Your task to perform on an android device: Open Youtube and go to "Your channel" Image 0: 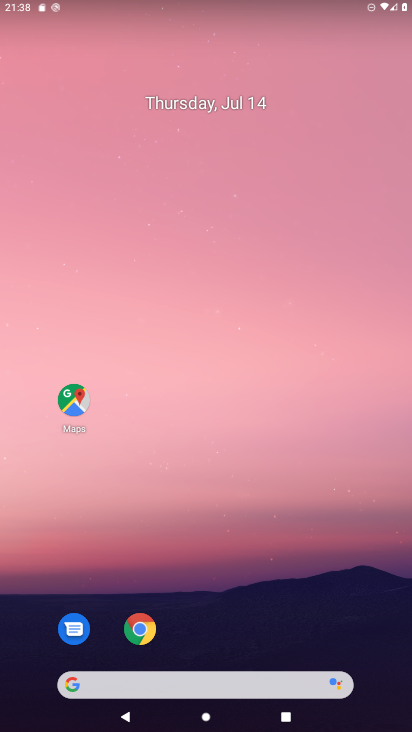
Step 0: drag from (268, 633) to (262, 128)
Your task to perform on an android device: Open Youtube and go to "Your channel" Image 1: 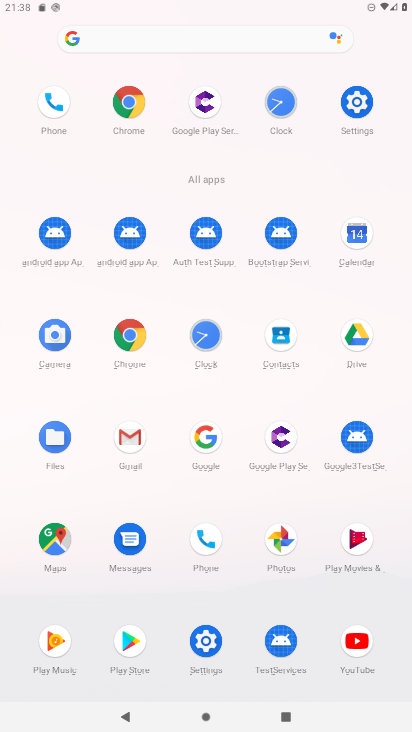
Step 1: click (359, 645)
Your task to perform on an android device: Open Youtube and go to "Your channel" Image 2: 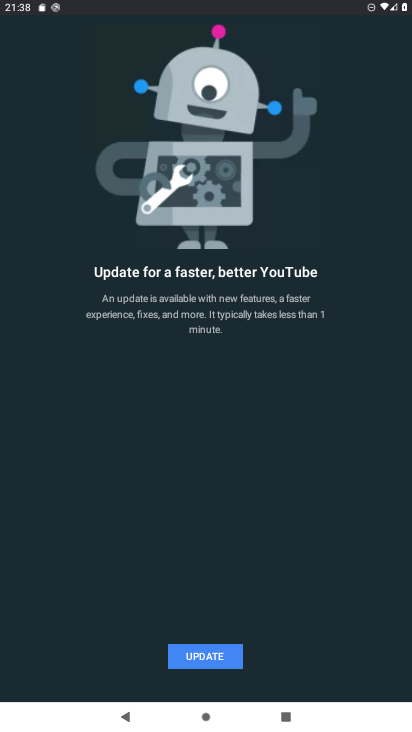
Step 2: task complete